Your task to perform on an android device: turn notification dots off Image 0: 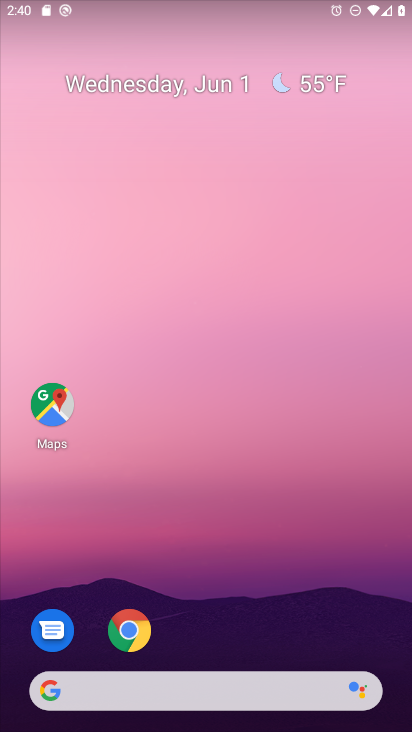
Step 0: drag from (309, 649) to (317, 56)
Your task to perform on an android device: turn notification dots off Image 1: 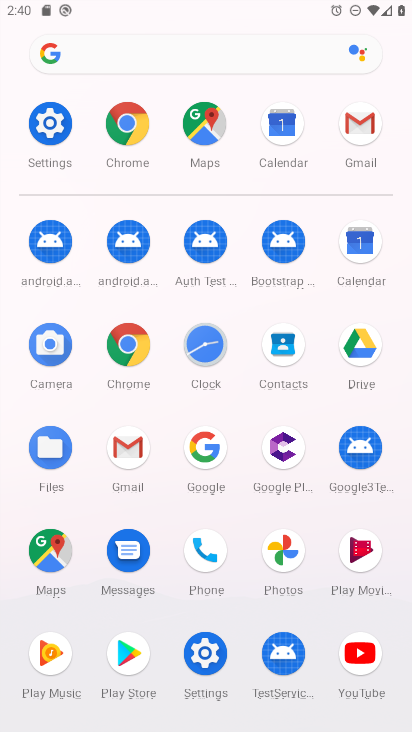
Step 1: click (52, 121)
Your task to perform on an android device: turn notification dots off Image 2: 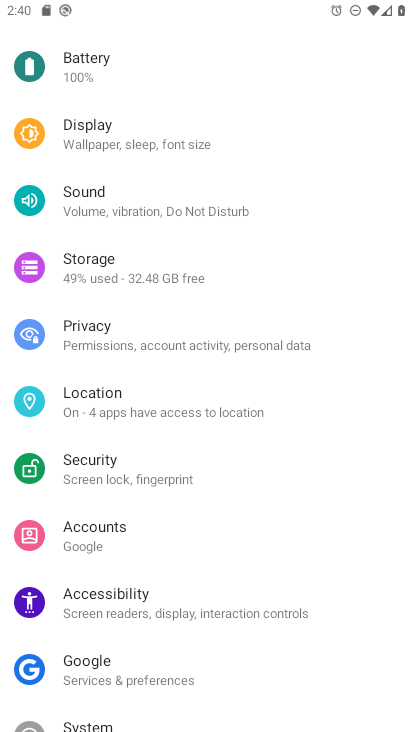
Step 2: drag from (225, 221) to (209, 675)
Your task to perform on an android device: turn notification dots off Image 3: 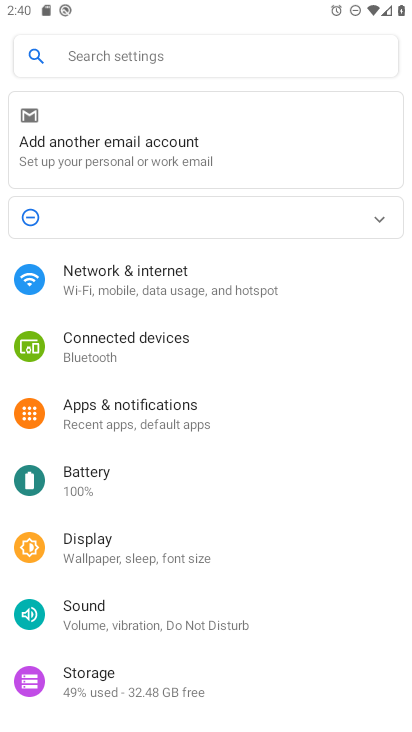
Step 3: click (158, 411)
Your task to perform on an android device: turn notification dots off Image 4: 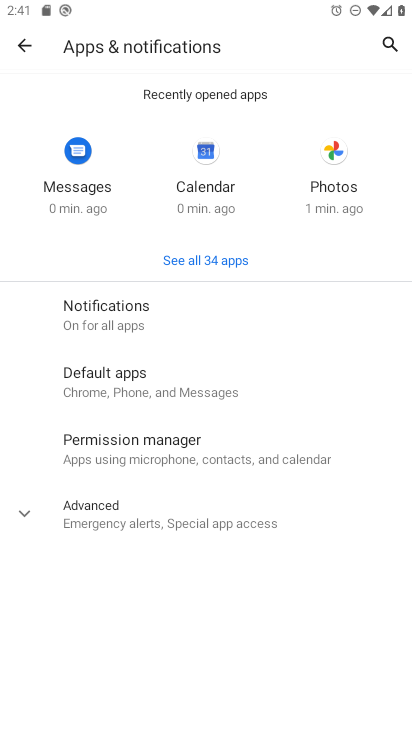
Step 4: click (141, 322)
Your task to perform on an android device: turn notification dots off Image 5: 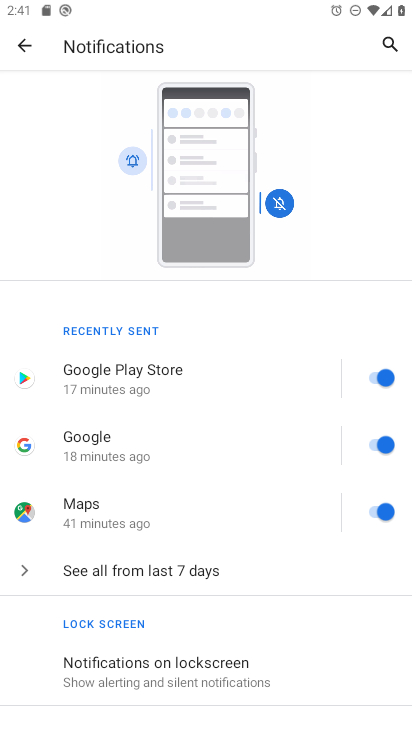
Step 5: drag from (282, 662) to (263, 229)
Your task to perform on an android device: turn notification dots off Image 6: 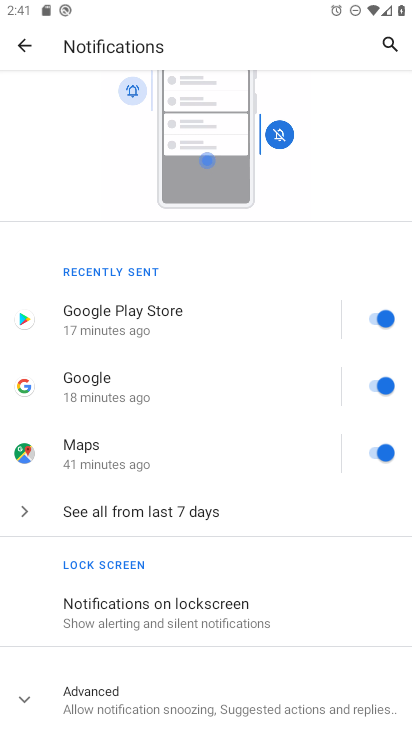
Step 6: click (199, 708)
Your task to perform on an android device: turn notification dots off Image 7: 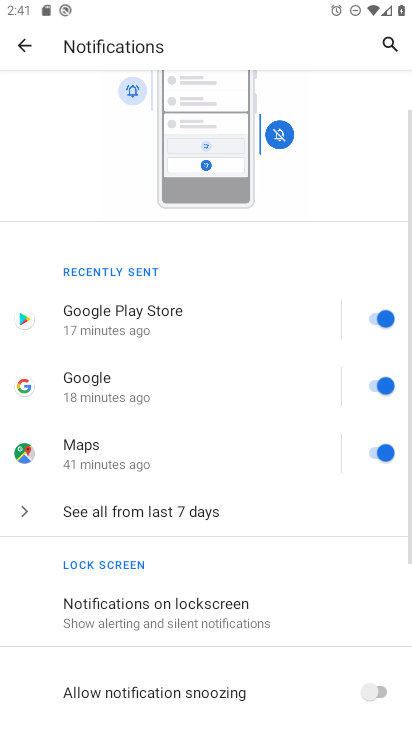
Step 7: drag from (203, 701) to (208, 203)
Your task to perform on an android device: turn notification dots off Image 8: 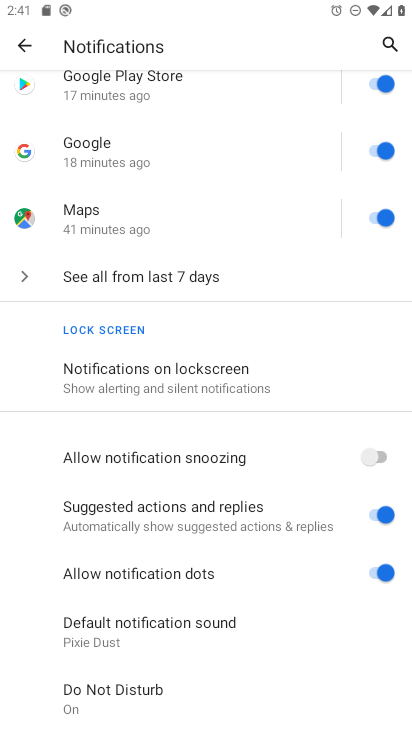
Step 8: click (378, 572)
Your task to perform on an android device: turn notification dots off Image 9: 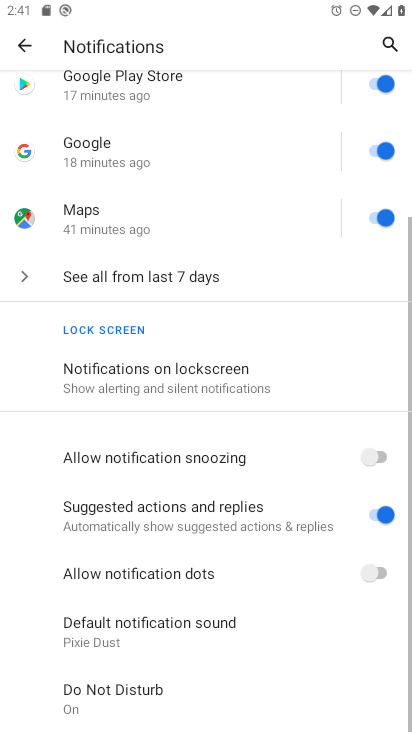
Step 9: task complete